Your task to perform on an android device: Open Yahoo.com Image 0: 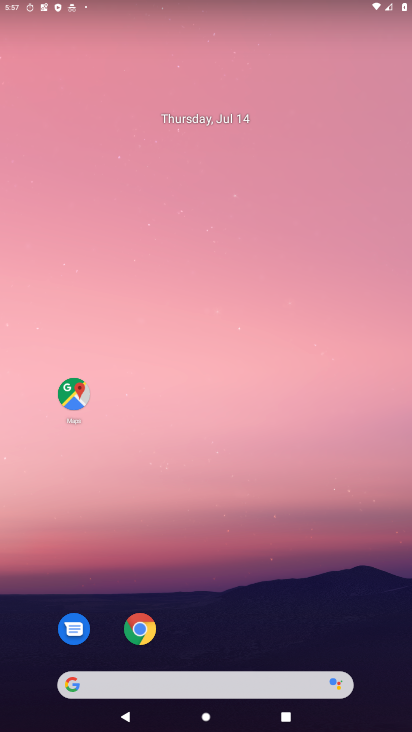
Step 0: drag from (229, 682) to (331, 50)
Your task to perform on an android device: Open Yahoo.com Image 1: 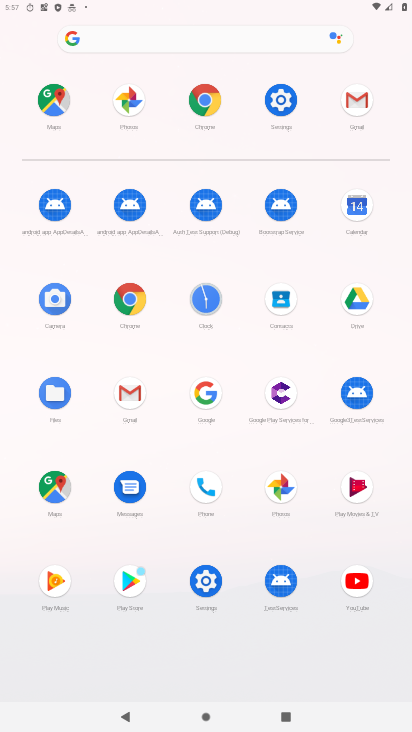
Step 1: click (127, 302)
Your task to perform on an android device: Open Yahoo.com Image 2: 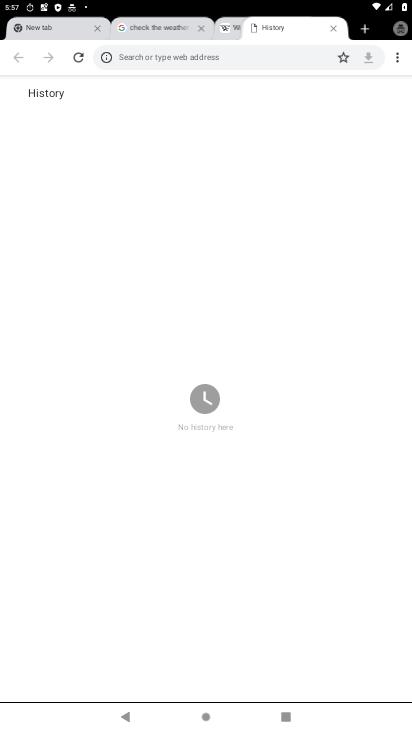
Step 2: click (246, 53)
Your task to perform on an android device: Open Yahoo.com Image 3: 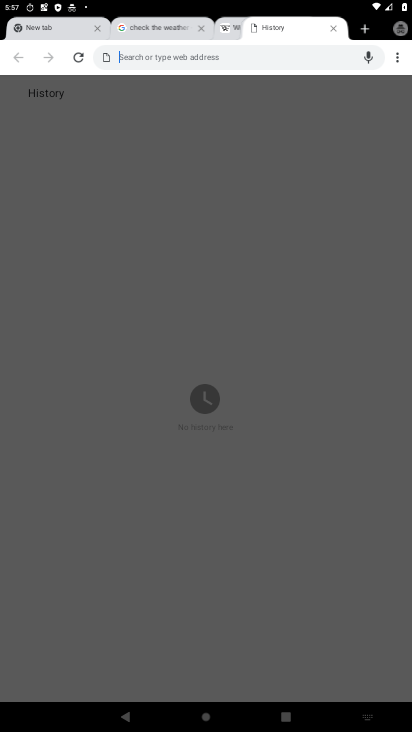
Step 3: type "yahoo.com"
Your task to perform on an android device: Open Yahoo.com Image 4: 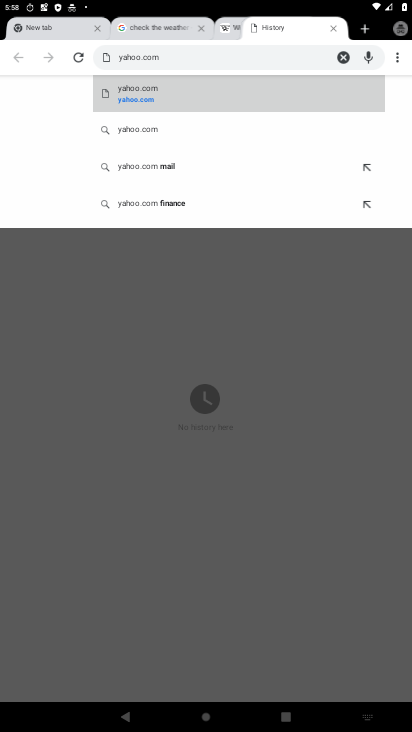
Step 4: click (173, 88)
Your task to perform on an android device: Open Yahoo.com Image 5: 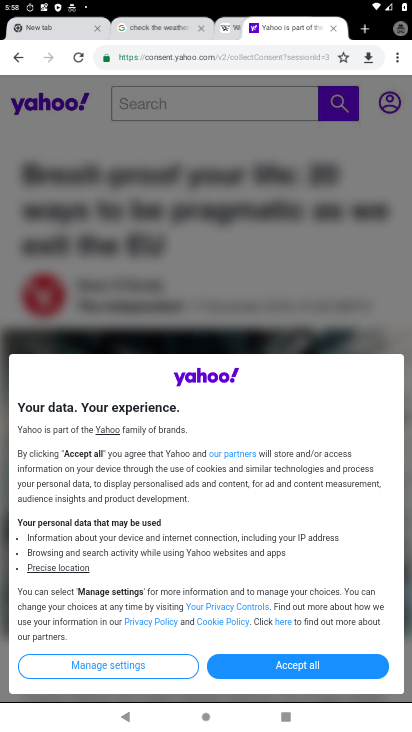
Step 5: task complete